Your task to perform on an android device: Find coffee shops on Maps Image 0: 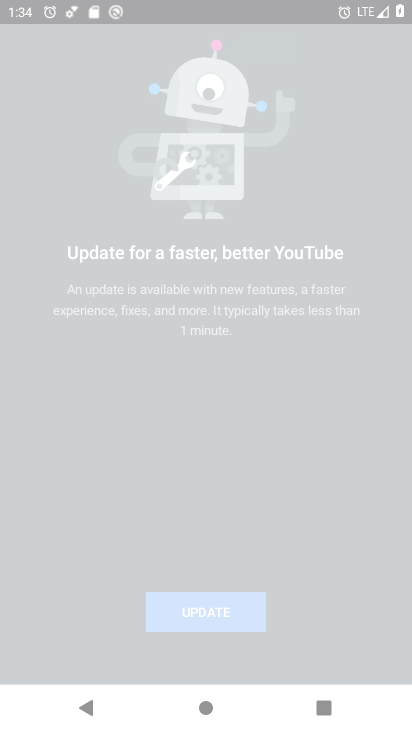
Step 0: click (277, 143)
Your task to perform on an android device: Find coffee shops on Maps Image 1: 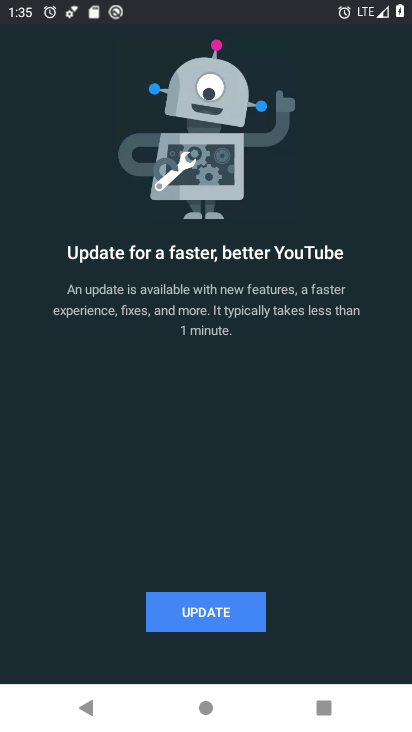
Step 1: press home button
Your task to perform on an android device: Find coffee shops on Maps Image 2: 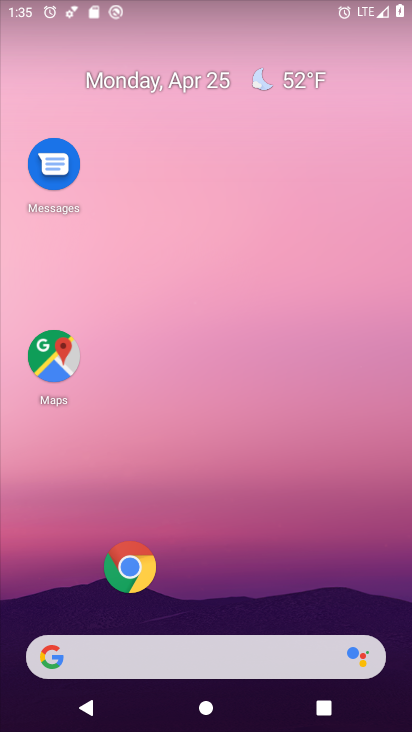
Step 2: drag from (211, 615) to (254, 135)
Your task to perform on an android device: Find coffee shops on Maps Image 3: 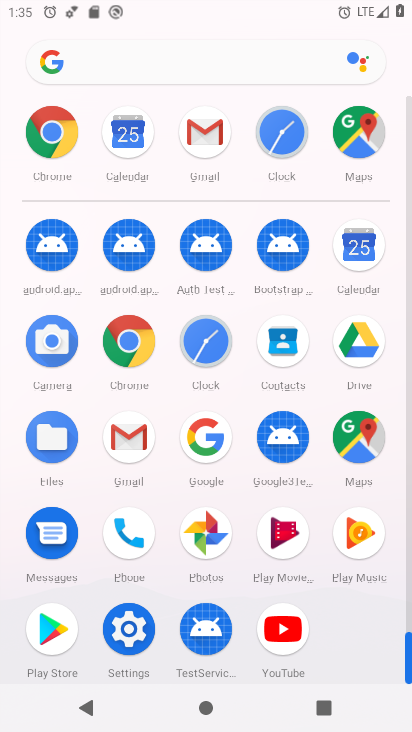
Step 3: click (368, 445)
Your task to perform on an android device: Find coffee shops on Maps Image 4: 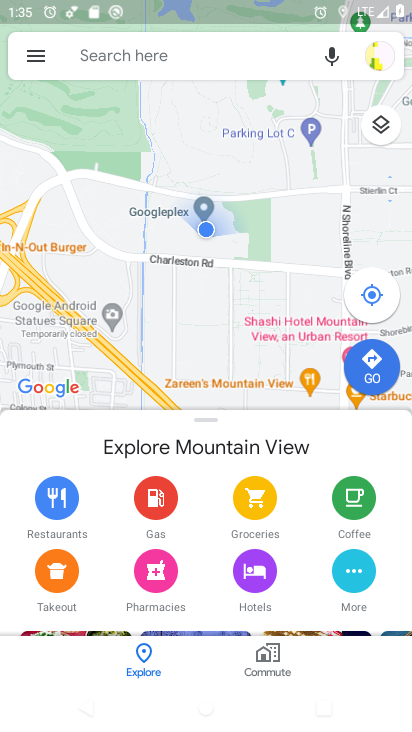
Step 4: click (211, 65)
Your task to perform on an android device: Find coffee shops on Maps Image 5: 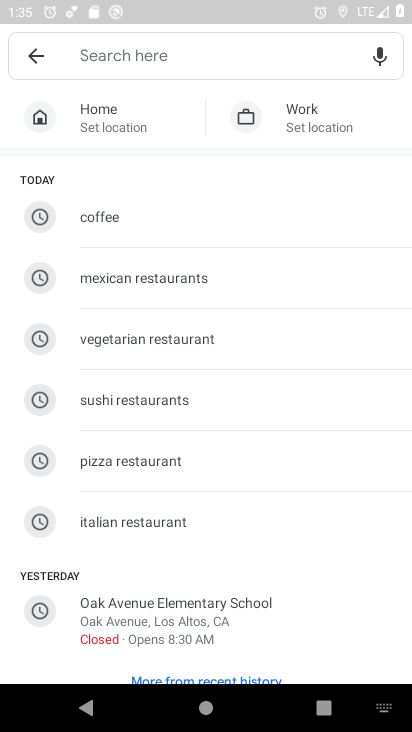
Step 5: type "coiffee shops"
Your task to perform on an android device: Find coffee shops on Maps Image 6: 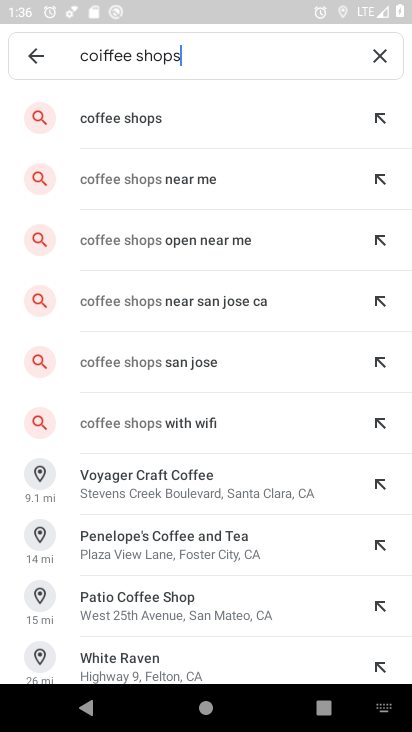
Step 6: click (209, 127)
Your task to perform on an android device: Find coffee shops on Maps Image 7: 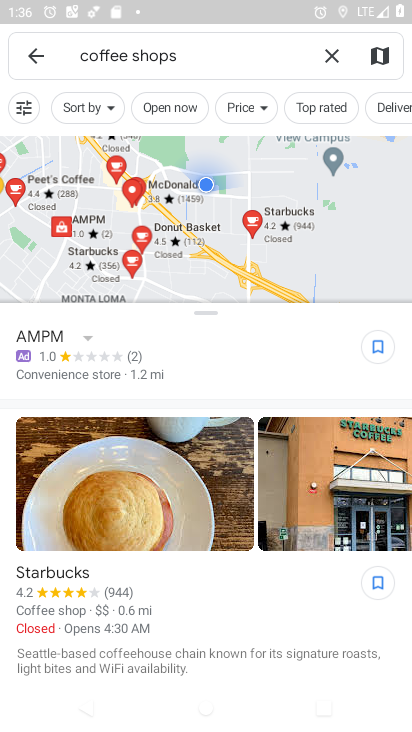
Step 7: task complete